Your task to perform on an android device: turn on location history Image 0: 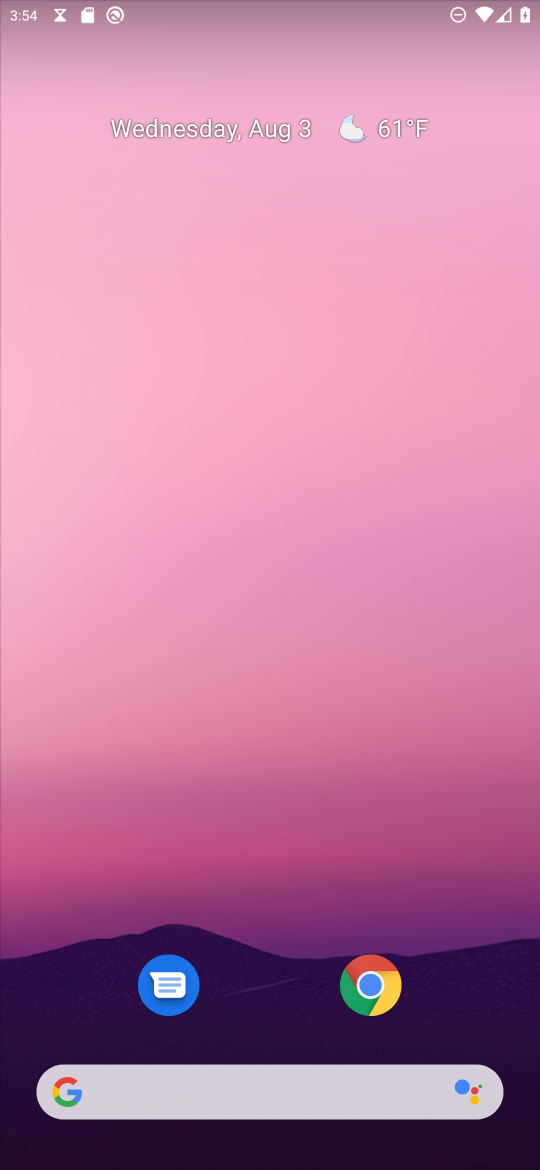
Step 0: drag from (280, 906) to (295, 24)
Your task to perform on an android device: turn on location history Image 1: 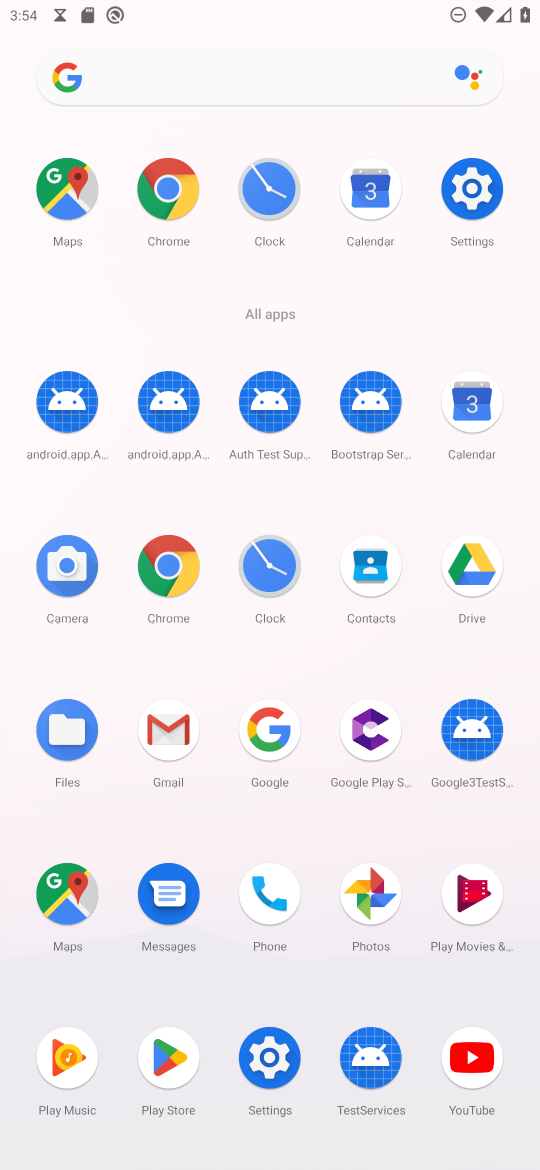
Step 1: click (472, 178)
Your task to perform on an android device: turn on location history Image 2: 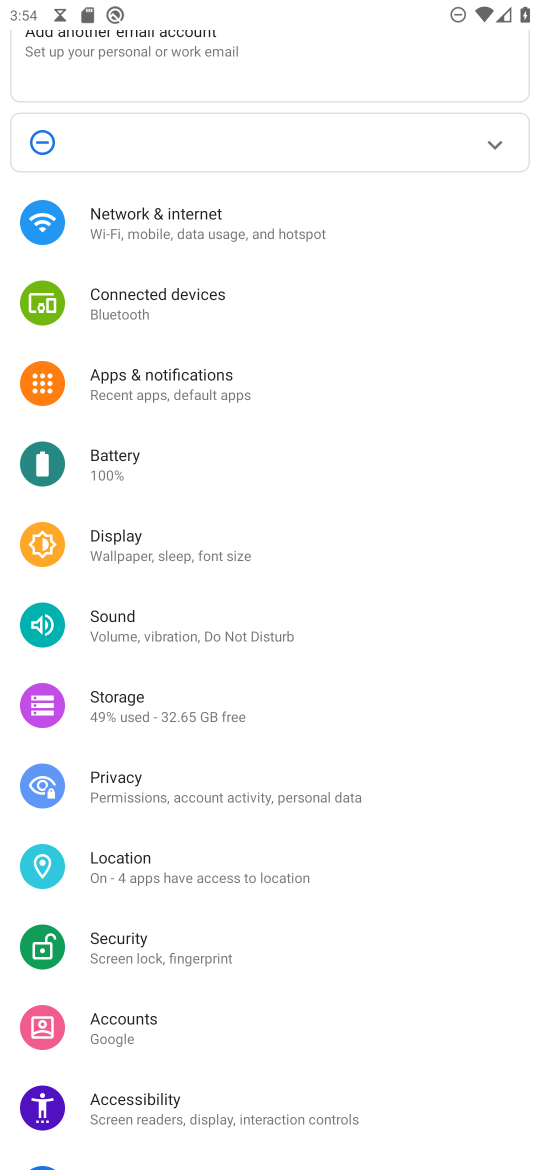
Step 2: click (168, 872)
Your task to perform on an android device: turn on location history Image 3: 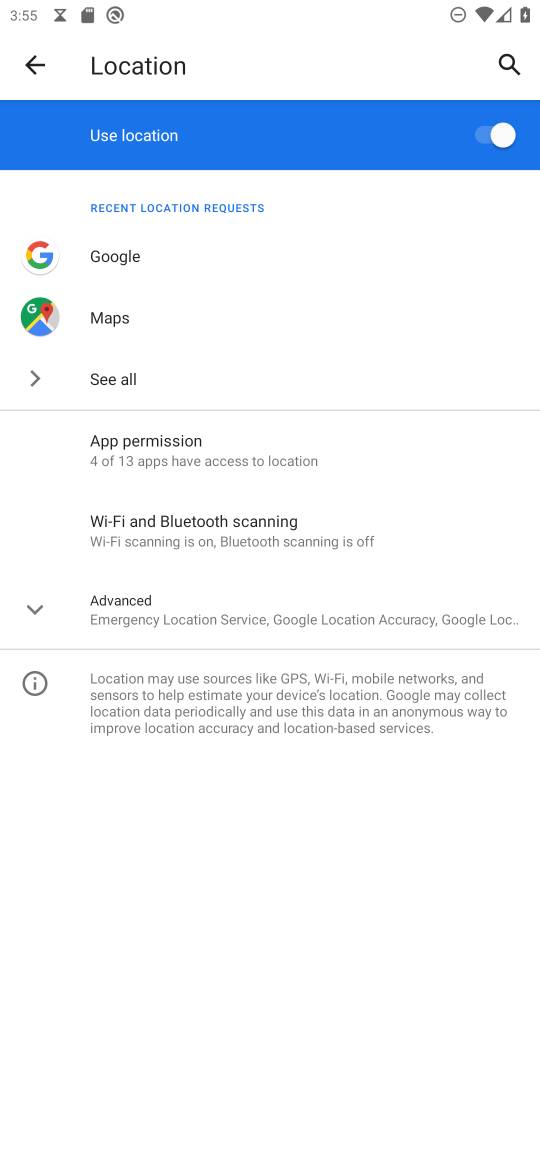
Step 3: click (196, 608)
Your task to perform on an android device: turn on location history Image 4: 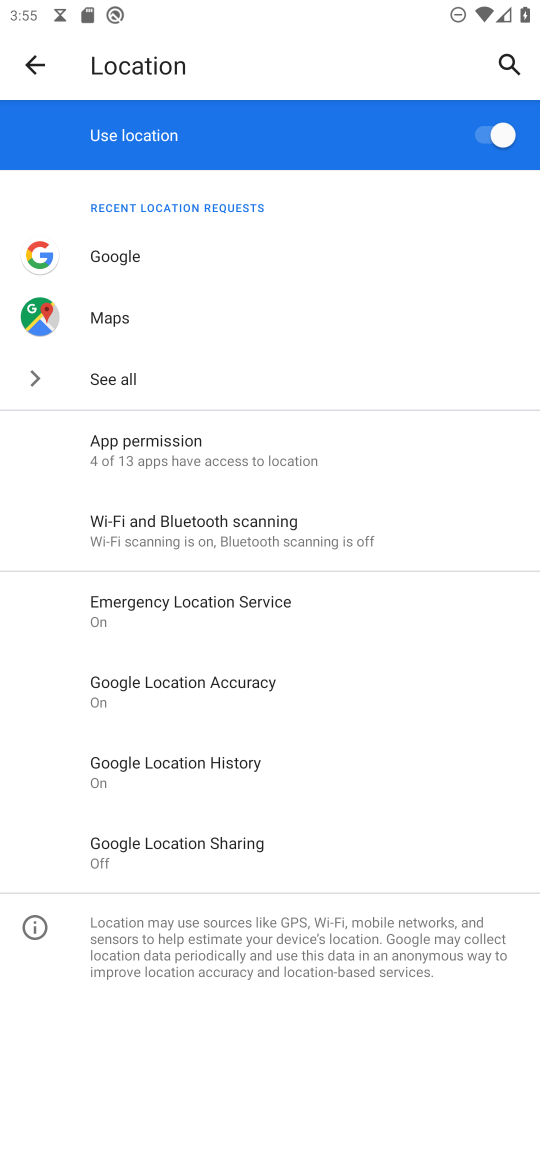
Step 4: click (174, 754)
Your task to perform on an android device: turn on location history Image 5: 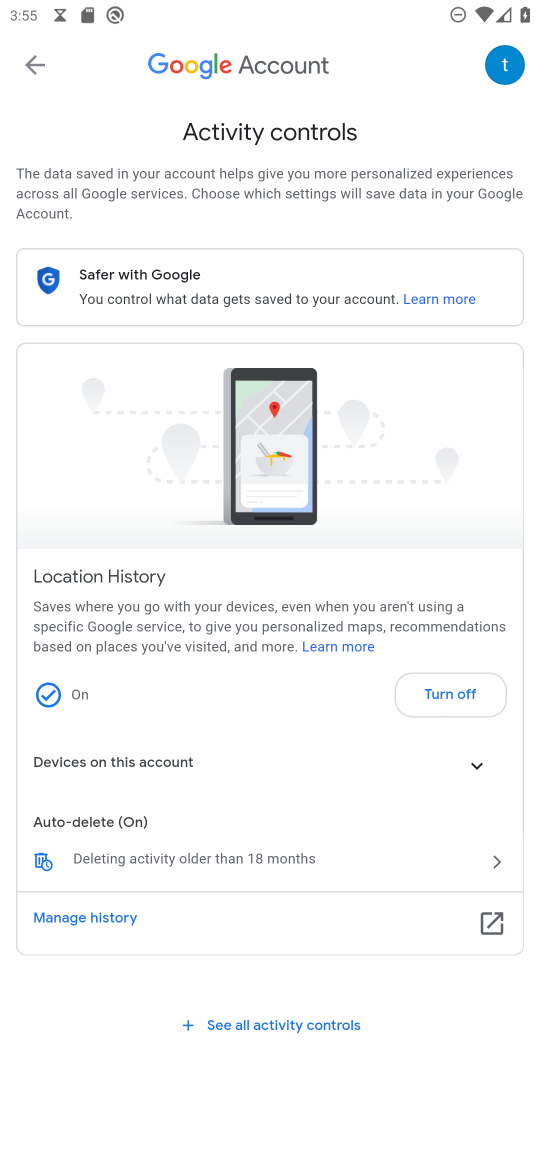
Step 5: task complete